Your task to perform on an android device: Set the phone to "Do not disturb". Image 0: 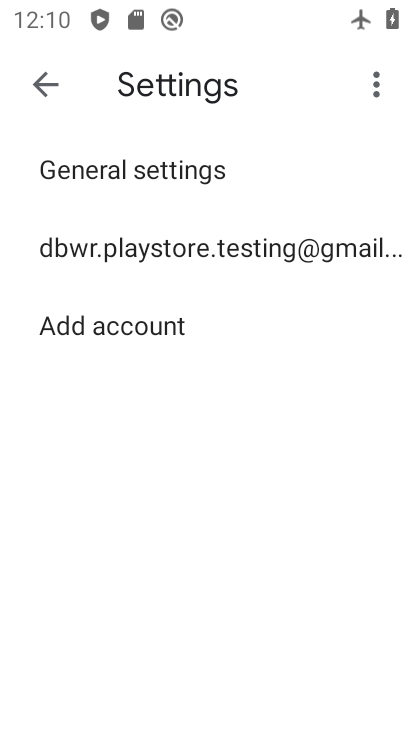
Step 0: press home button
Your task to perform on an android device: Set the phone to "Do not disturb". Image 1: 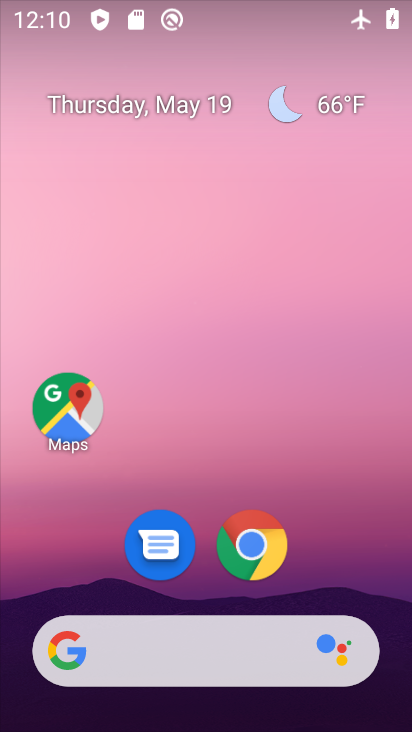
Step 1: drag from (147, 704) to (91, 27)
Your task to perform on an android device: Set the phone to "Do not disturb". Image 2: 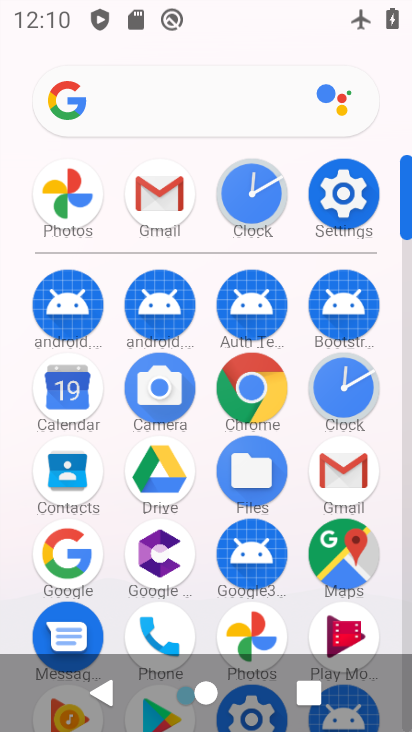
Step 2: click (353, 196)
Your task to perform on an android device: Set the phone to "Do not disturb". Image 3: 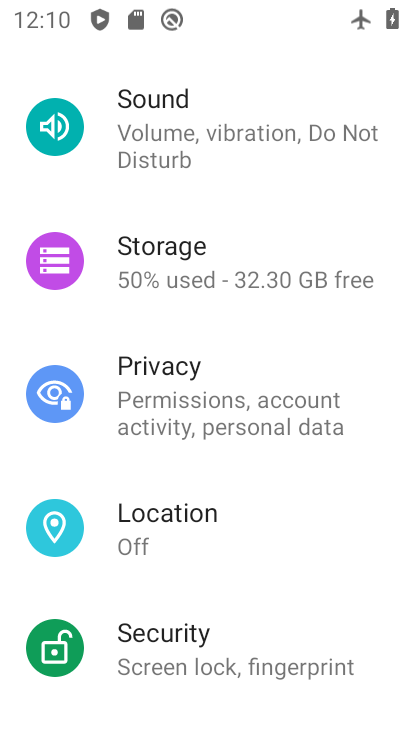
Step 3: click (288, 129)
Your task to perform on an android device: Set the phone to "Do not disturb". Image 4: 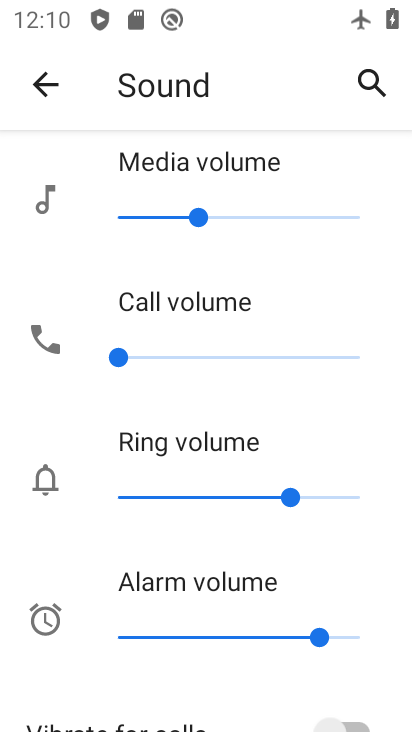
Step 4: task complete